Your task to perform on an android device: find photos in the google photos app Image 0: 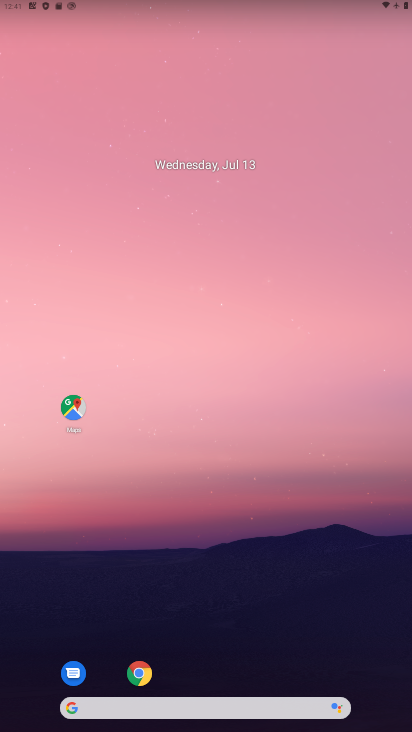
Step 0: drag from (285, 652) to (247, 304)
Your task to perform on an android device: find photos in the google photos app Image 1: 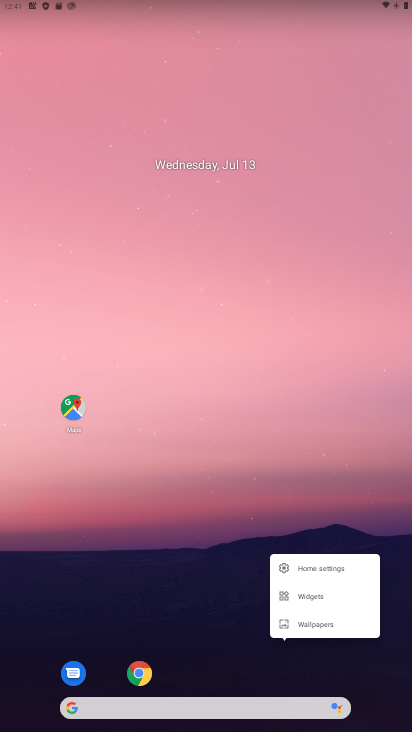
Step 1: click (247, 304)
Your task to perform on an android device: find photos in the google photos app Image 2: 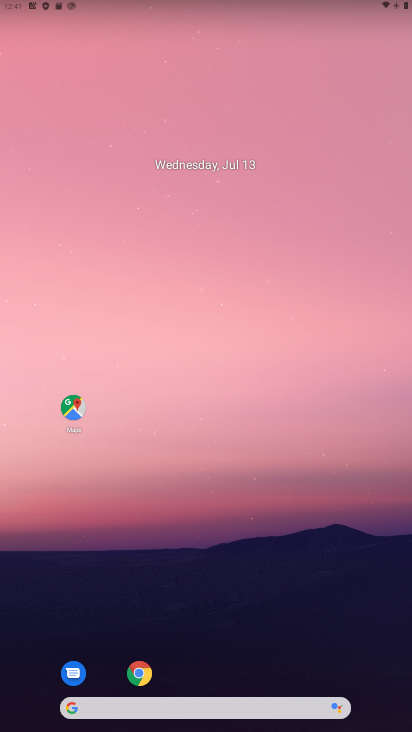
Step 2: drag from (202, 660) to (205, 163)
Your task to perform on an android device: find photos in the google photos app Image 3: 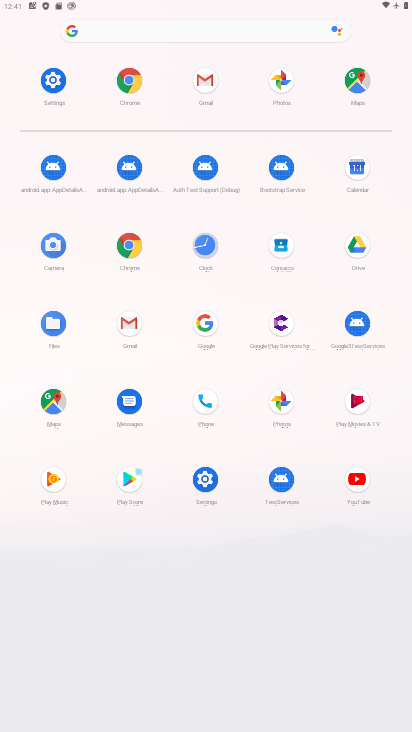
Step 3: click (292, 99)
Your task to perform on an android device: find photos in the google photos app Image 4: 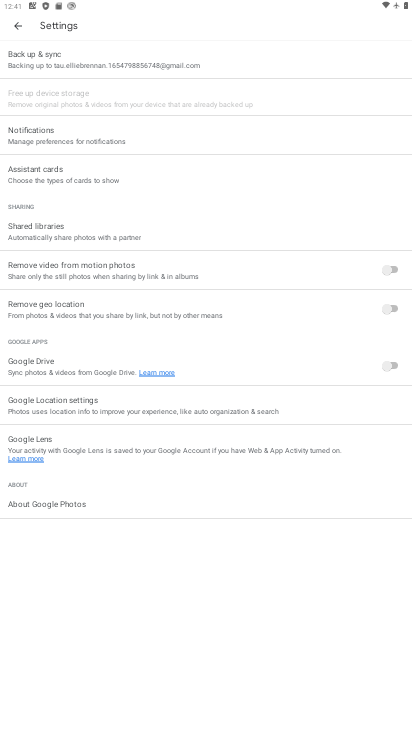
Step 4: task complete